Your task to perform on an android device: Open wifi settings Image 0: 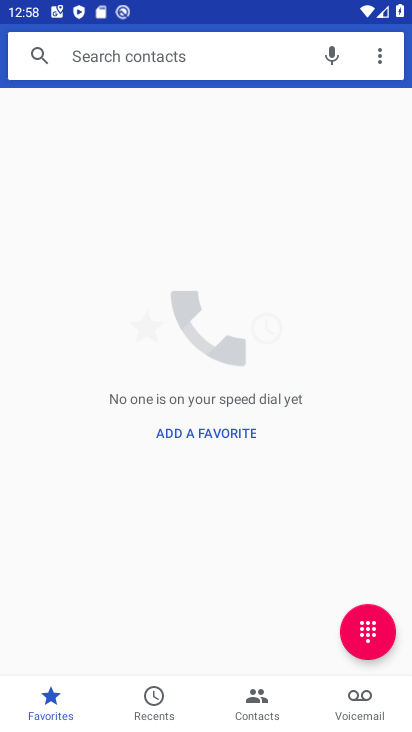
Step 0: press back button
Your task to perform on an android device: Open wifi settings Image 1: 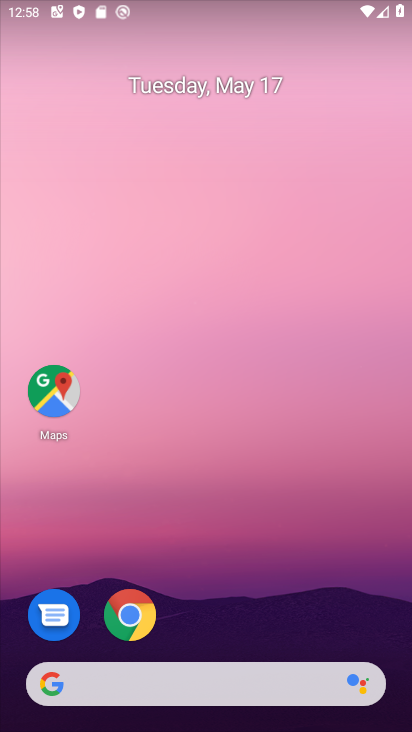
Step 1: drag from (279, 605) to (322, 163)
Your task to perform on an android device: Open wifi settings Image 2: 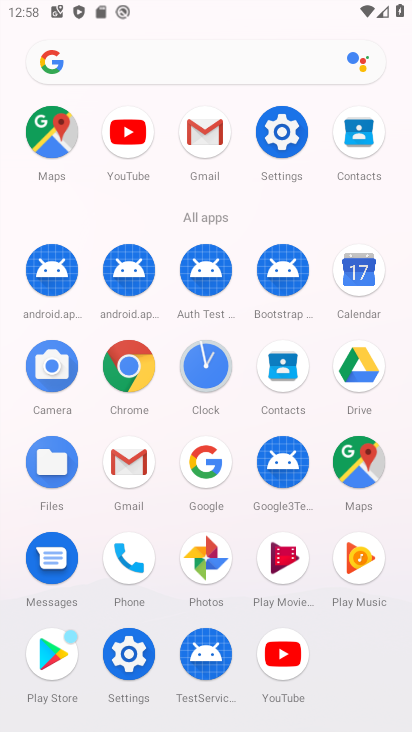
Step 2: click (283, 132)
Your task to perform on an android device: Open wifi settings Image 3: 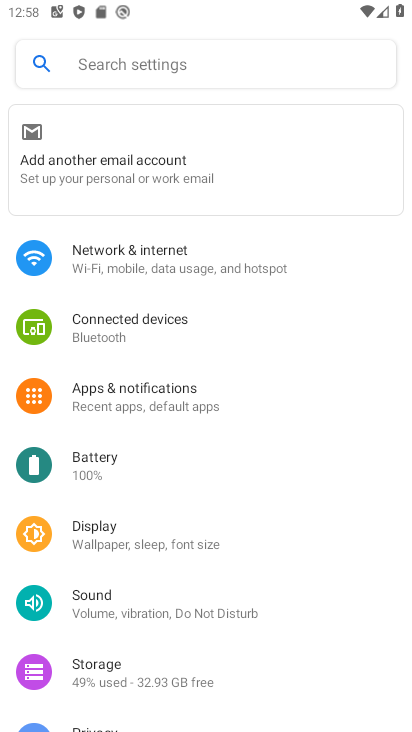
Step 3: click (143, 253)
Your task to perform on an android device: Open wifi settings Image 4: 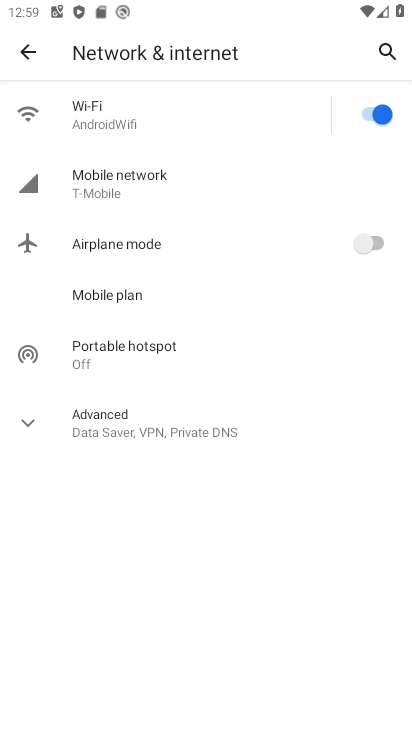
Step 4: click (114, 119)
Your task to perform on an android device: Open wifi settings Image 5: 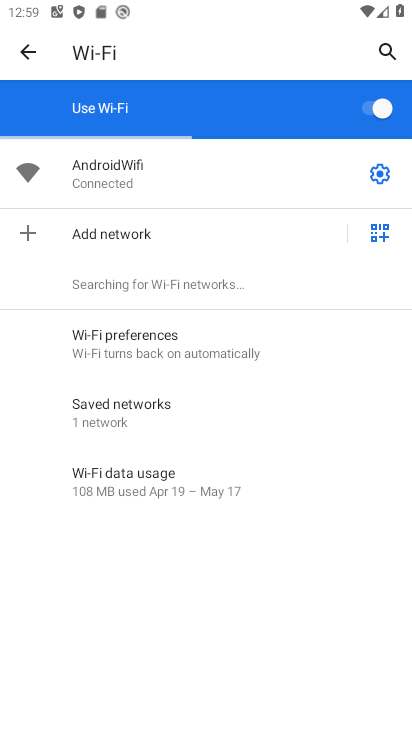
Step 5: click (375, 172)
Your task to perform on an android device: Open wifi settings Image 6: 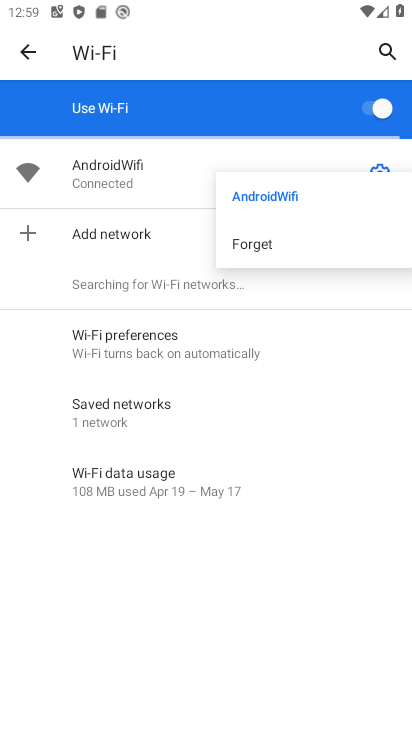
Step 6: click (343, 158)
Your task to perform on an android device: Open wifi settings Image 7: 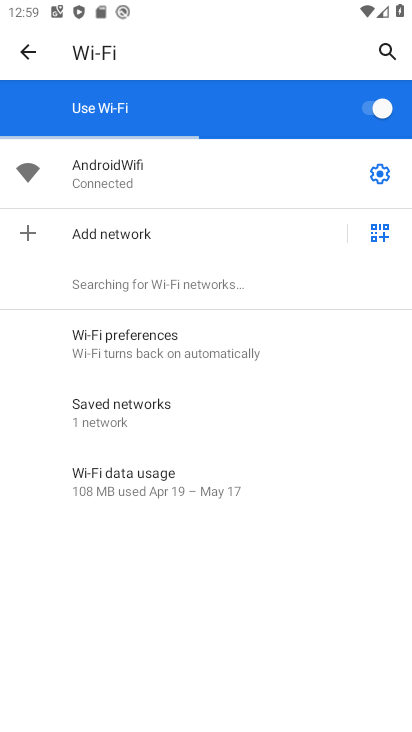
Step 7: click (382, 169)
Your task to perform on an android device: Open wifi settings Image 8: 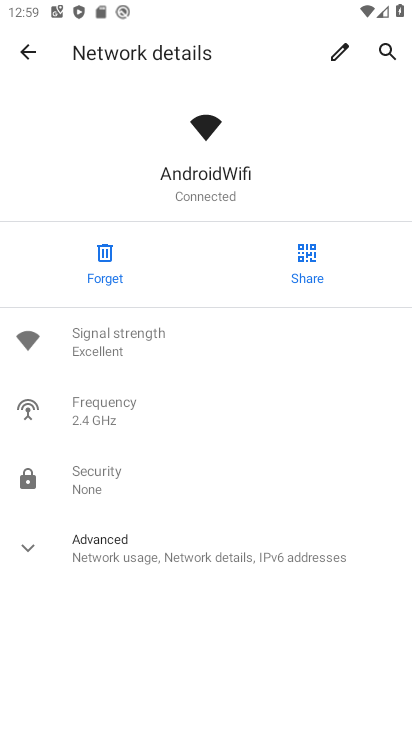
Step 8: task complete